Your task to perform on an android device: delete the emails in spam in the gmail app Image 0: 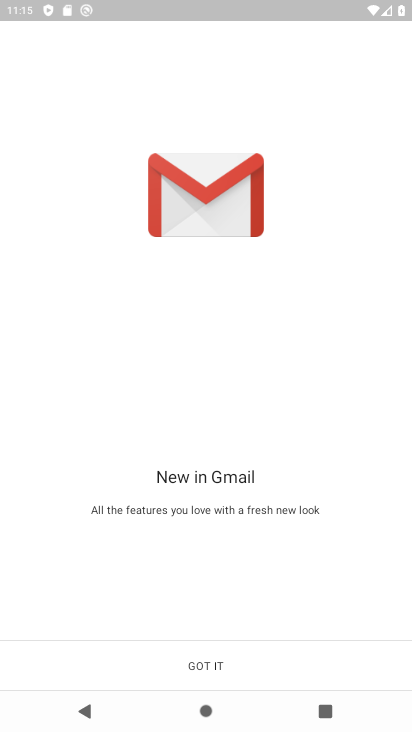
Step 0: click (192, 663)
Your task to perform on an android device: delete the emails in spam in the gmail app Image 1: 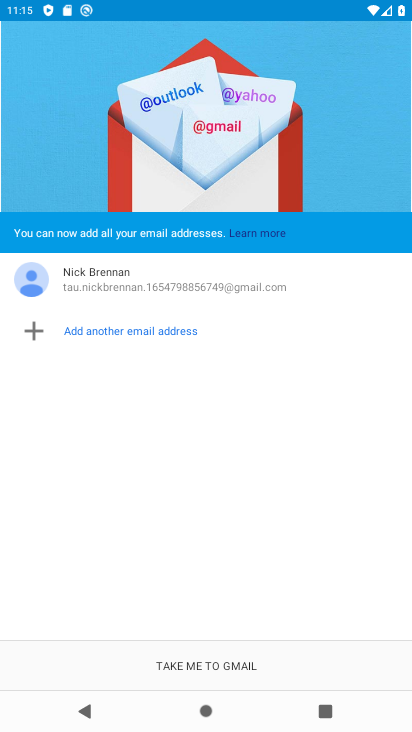
Step 1: click (194, 661)
Your task to perform on an android device: delete the emails in spam in the gmail app Image 2: 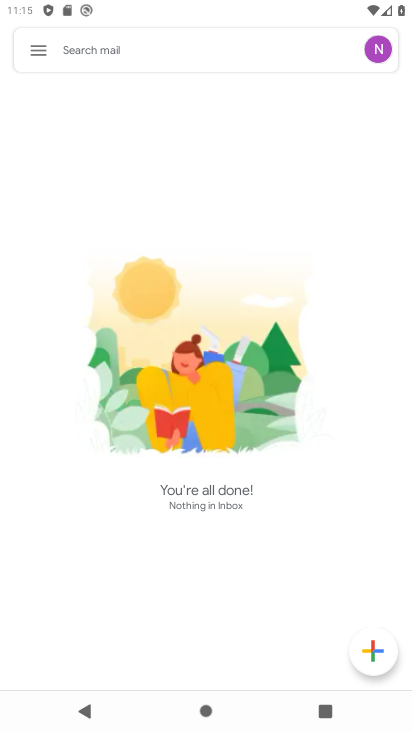
Step 2: task complete